Your task to perform on an android device: change alarm snooze length Image 0: 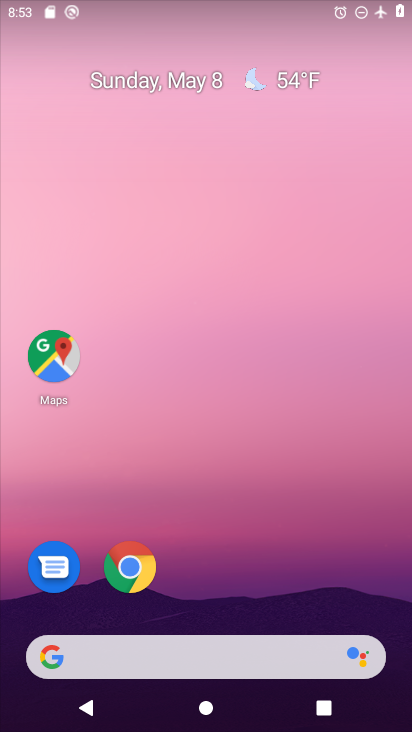
Step 0: drag from (330, 407) to (332, 53)
Your task to perform on an android device: change alarm snooze length Image 1: 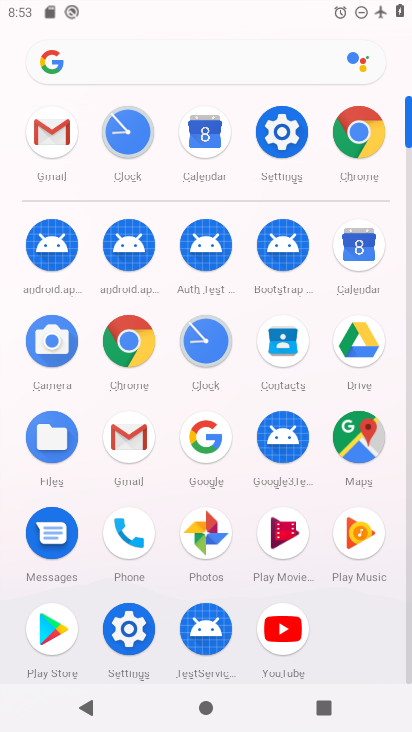
Step 1: click (111, 123)
Your task to perform on an android device: change alarm snooze length Image 2: 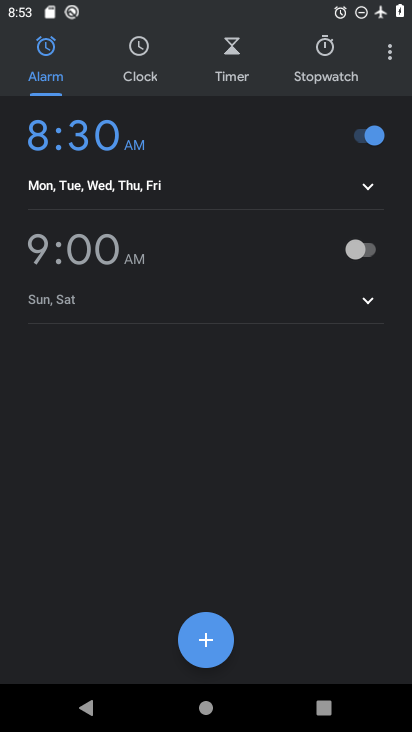
Step 2: click (389, 59)
Your task to perform on an android device: change alarm snooze length Image 3: 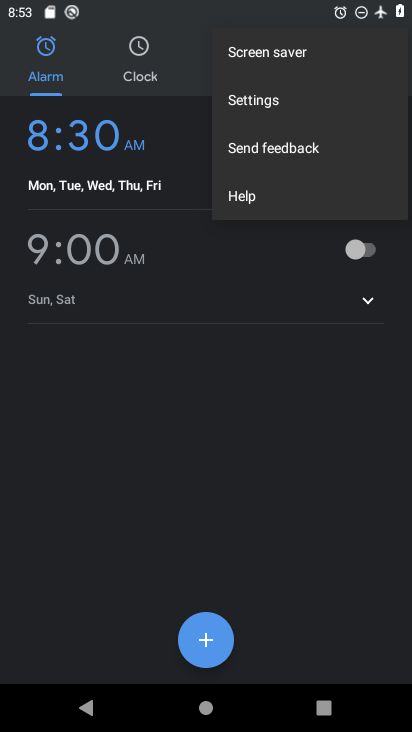
Step 3: click (237, 98)
Your task to perform on an android device: change alarm snooze length Image 4: 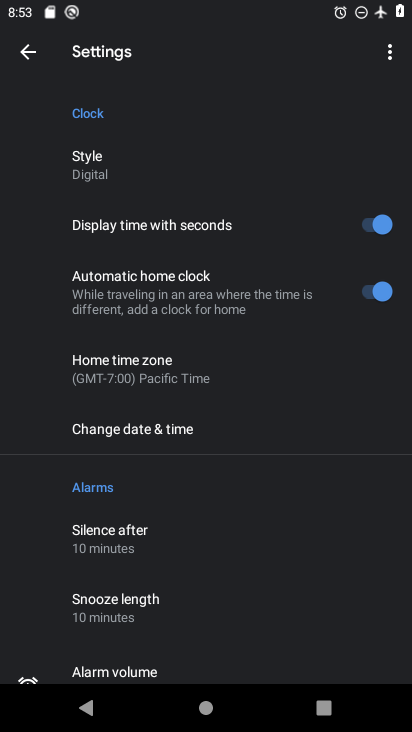
Step 4: drag from (188, 585) to (238, 262)
Your task to perform on an android device: change alarm snooze length Image 5: 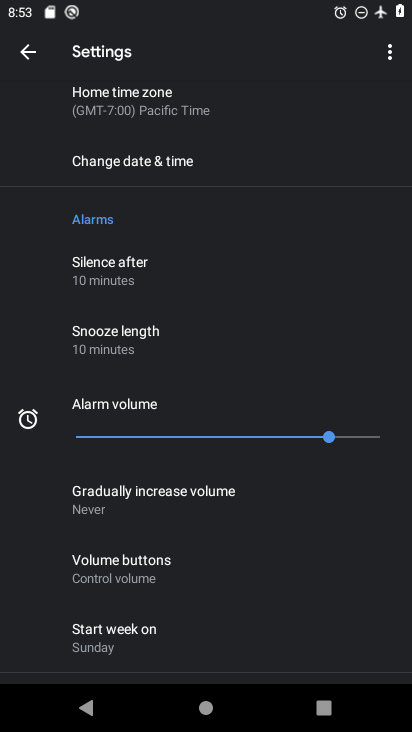
Step 5: click (153, 352)
Your task to perform on an android device: change alarm snooze length Image 6: 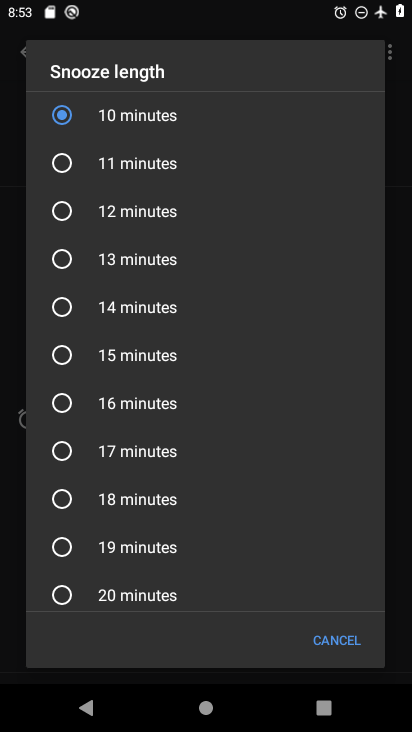
Step 6: click (57, 308)
Your task to perform on an android device: change alarm snooze length Image 7: 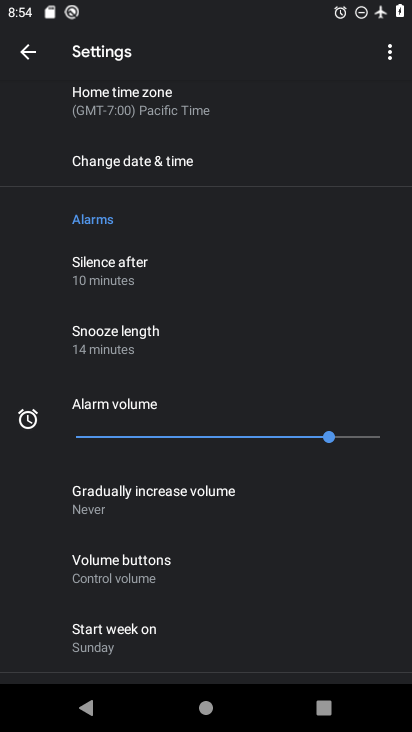
Step 7: task complete